Your task to perform on an android device: Go to privacy settings Image 0: 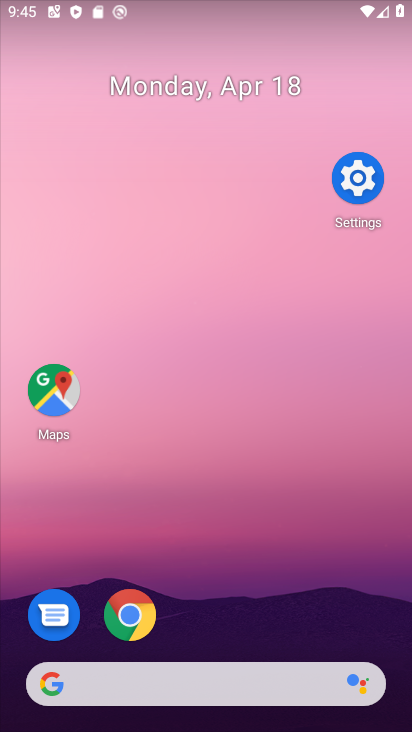
Step 0: drag from (337, 626) to (224, 14)
Your task to perform on an android device: Go to privacy settings Image 1: 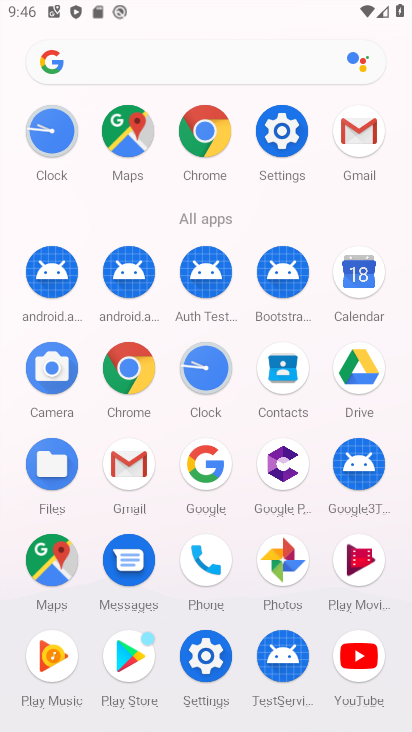
Step 1: click (283, 128)
Your task to perform on an android device: Go to privacy settings Image 2: 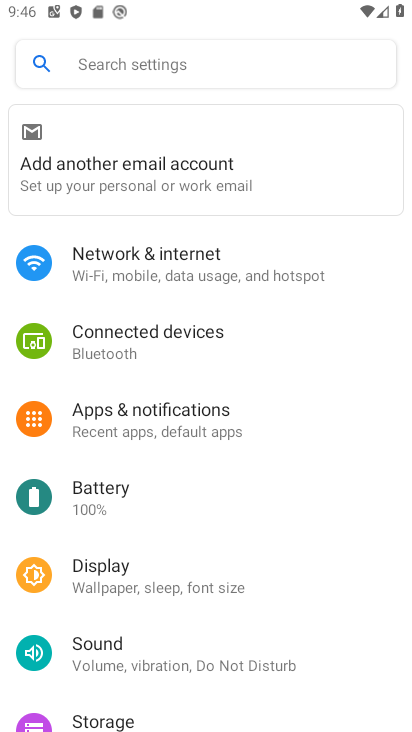
Step 2: drag from (215, 459) to (188, 266)
Your task to perform on an android device: Go to privacy settings Image 3: 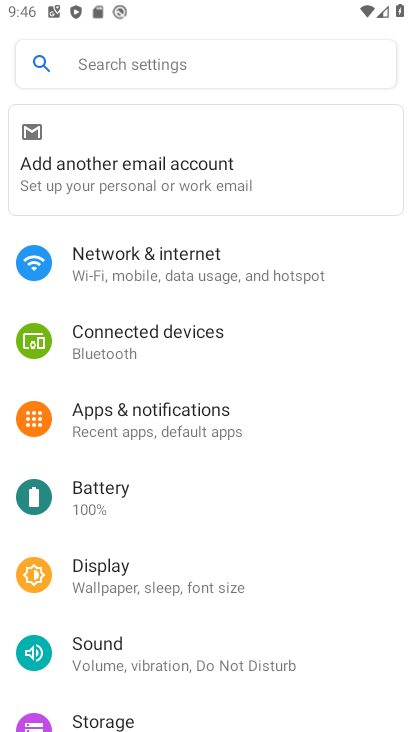
Step 3: drag from (246, 574) to (235, 252)
Your task to perform on an android device: Go to privacy settings Image 4: 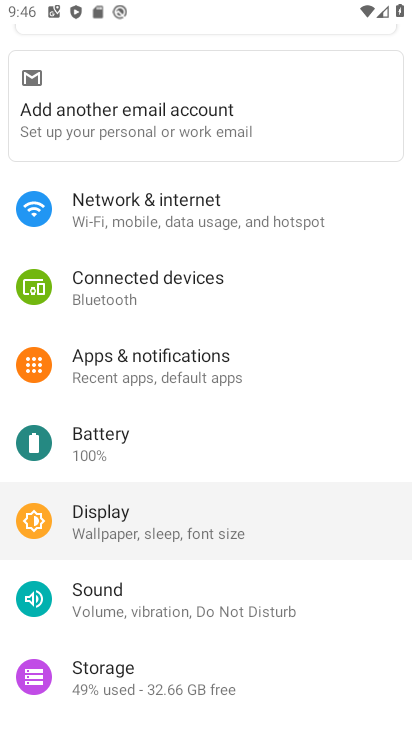
Step 4: drag from (233, 574) to (204, 268)
Your task to perform on an android device: Go to privacy settings Image 5: 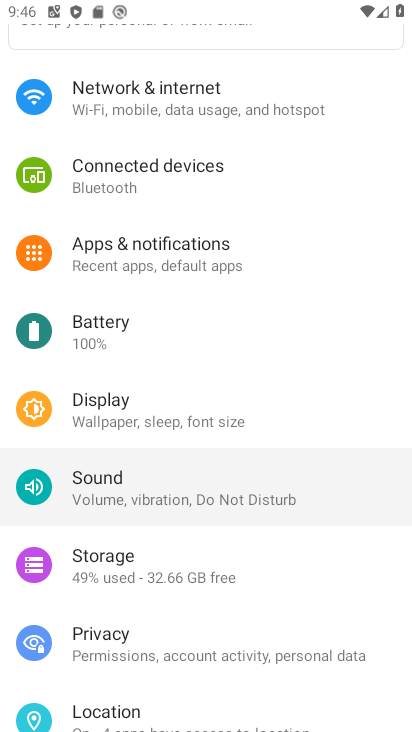
Step 5: drag from (290, 453) to (343, 178)
Your task to perform on an android device: Go to privacy settings Image 6: 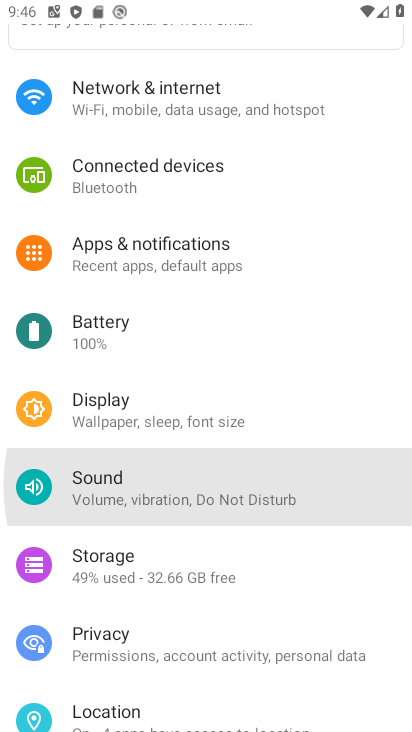
Step 6: drag from (234, 450) to (163, 96)
Your task to perform on an android device: Go to privacy settings Image 7: 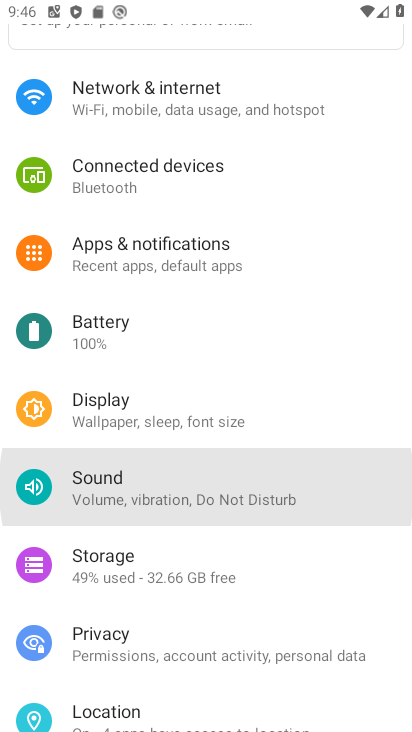
Step 7: drag from (227, 510) to (249, 200)
Your task to perform on an android device: Go to privacy settings Image 8: 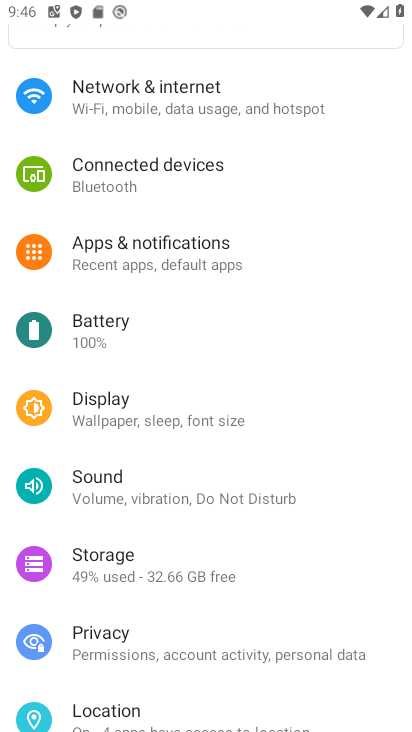
Step 8: drag from (208, 480) to (163, 275)
Your task to perform on an android device: Go to privacy settings Image 9: 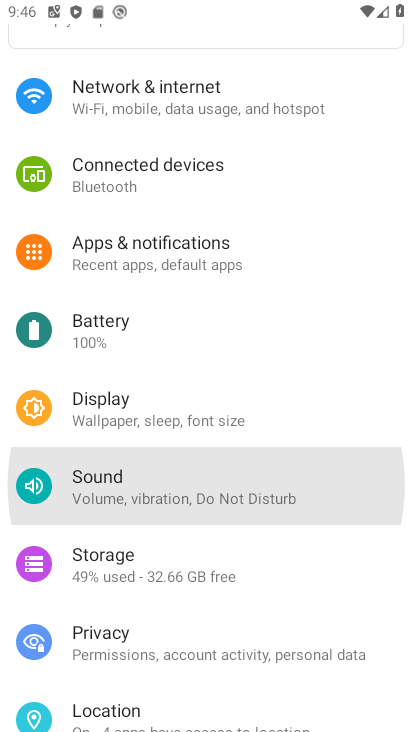
Step 9: drag from (243, 409) to (240, 141)
Your task to perform on an android device: Go to privacy settings Image 10: 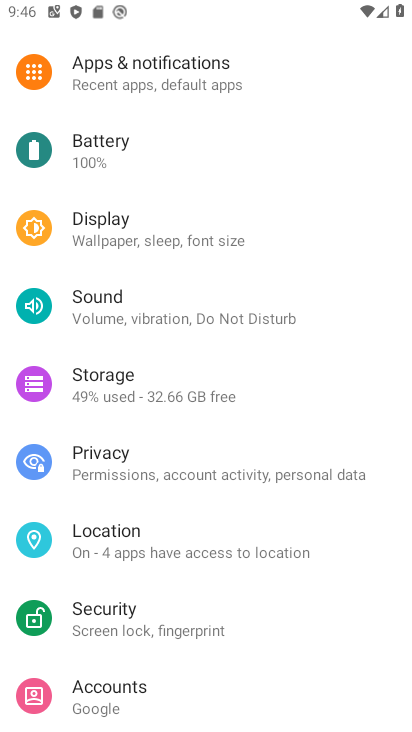
Step 10: click (90, 464)
Your task to perform on an android device: Go to privacy settings Image 11: 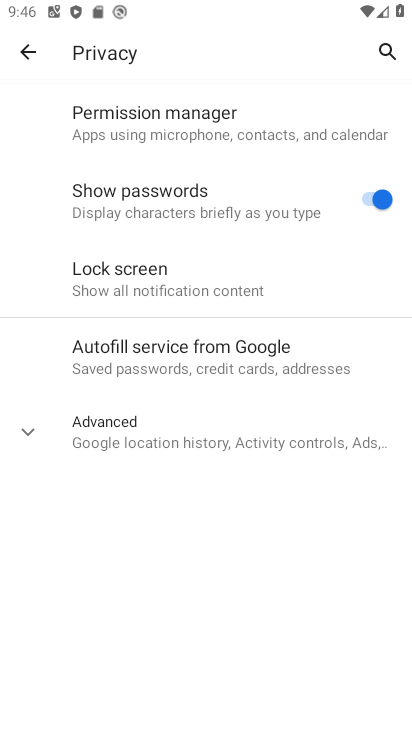
Step 11: task complete